Your task to perform on an android device: Go to internet settings Image 0: 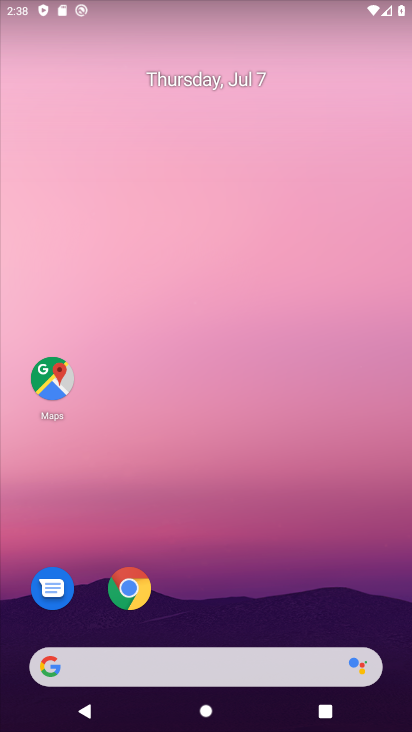
Step 0: drag from (267, 595) to (275, 113)
Your task to perform on an android device: Go to internet settings Image 1: 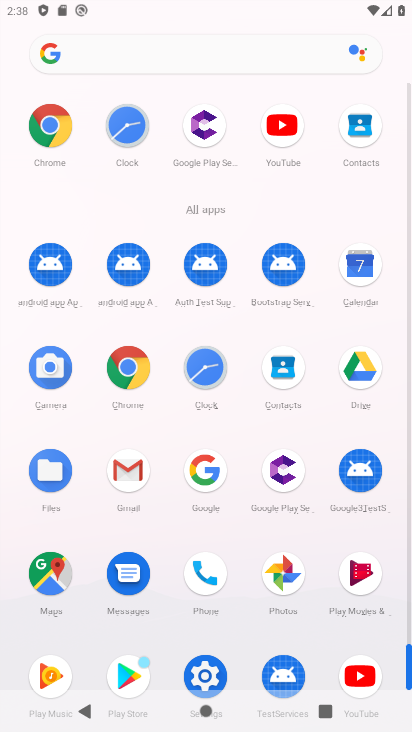
Step 1: drag from (236, 448) to (254, 273)
Your task to perform on an android device: Go to internet settings Image 2: 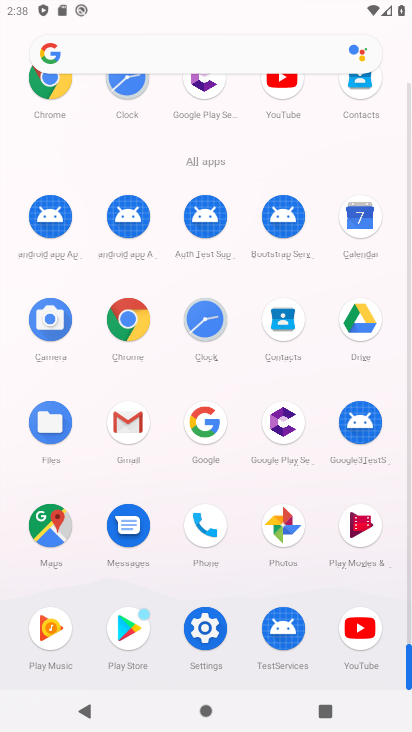
Step 2: click (205, 624)
Your task to perform on an android device: Go to internet settings Image 3: 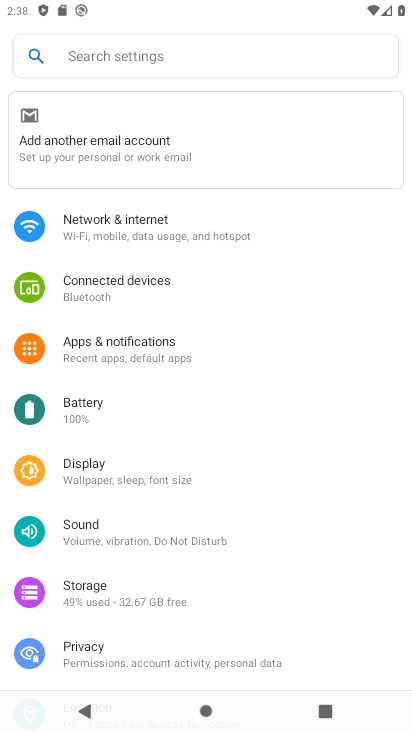
Step 3: click (163, 231)
Your task to perform on an android device: Go to internet settings Image 4: 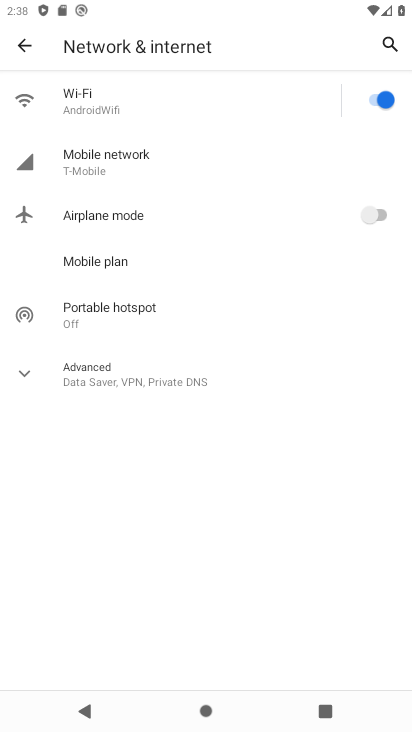
Step 4: task complete